Your task to perform on an android device: Open network settings Image 0: 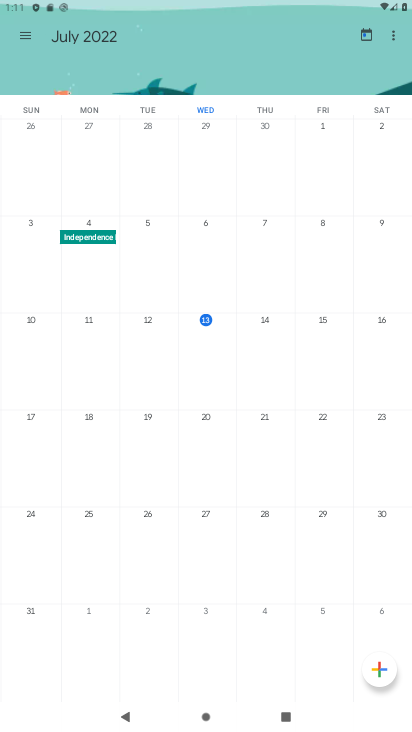
Step 0: press home button
Your task to perform on an android device: Open network settings Image 1: 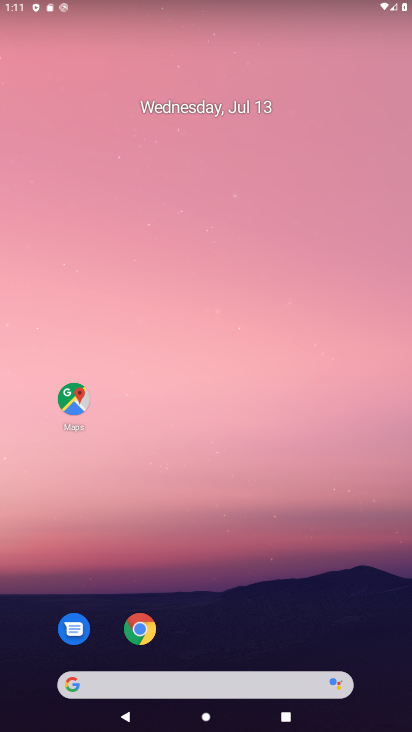
Step 1: drag from (271, 494) to (289, 170)
Your task to perform on an android device: Open network settings Image 2: 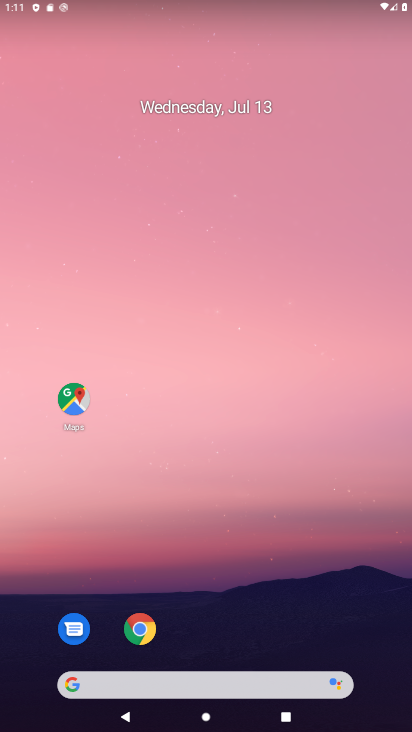
Step 2: drag from (293, 630) to (349, 103)
Your task to perform on an android device: Open network settings Image 3: 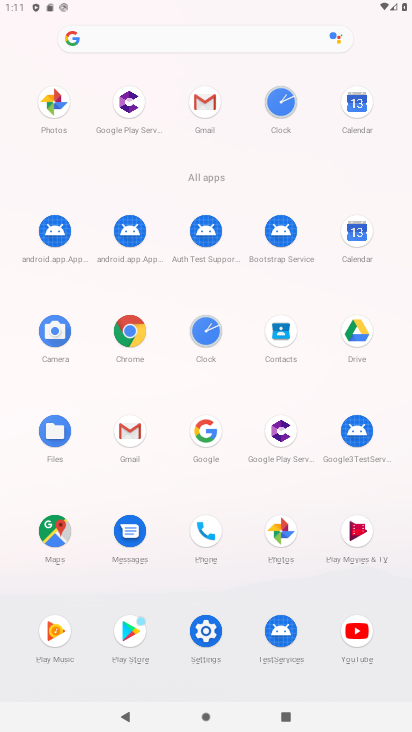
Step 3: click (211, 644)
Your task to perform on an android device: Open network settings Image 4: 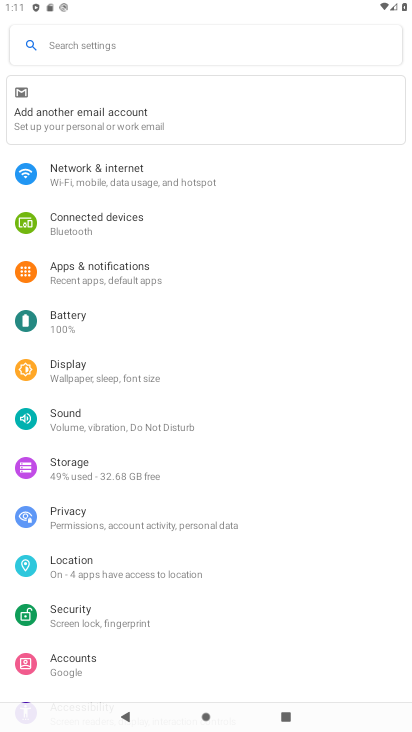
Step 4: click (237, 184)
Your task to perform on an android device: Open network settings Image 5: 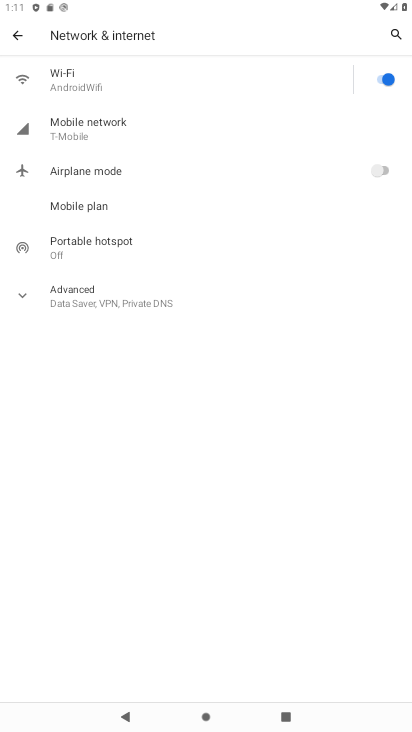
Step 5: task complete